Your task to perform on an android device: toggle notification dots Image 0: 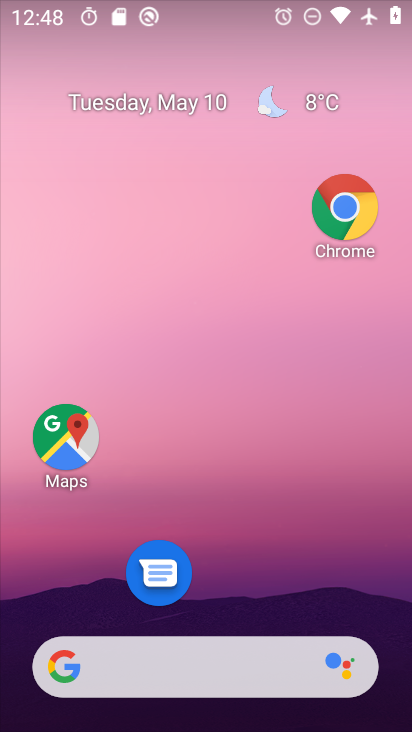
Step 0: drag from (268, 597) to (220, 219)
Your task to perform on an android device: toggle notification dots Image 1: 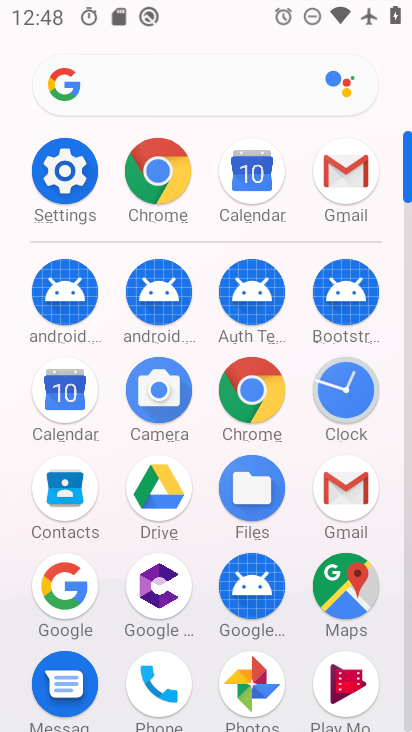
Step 1: click (71, 158)
Your task to perform on an android device: toggle notification dots Image 2: 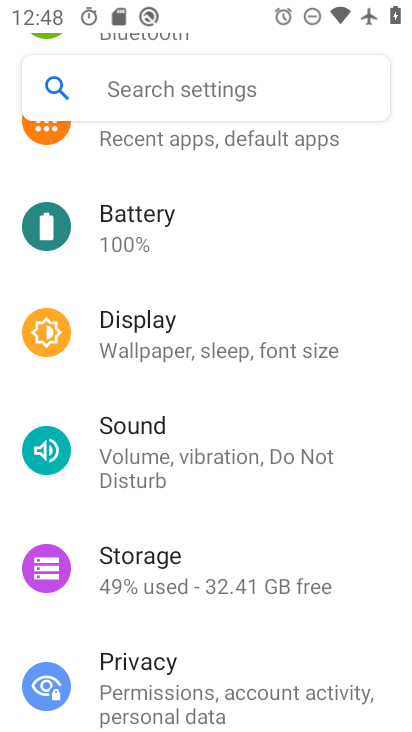
Step 2: drag from (229, 197) to (293, 672)
Your task to perform on an android device: toggle notification dots Image 3: 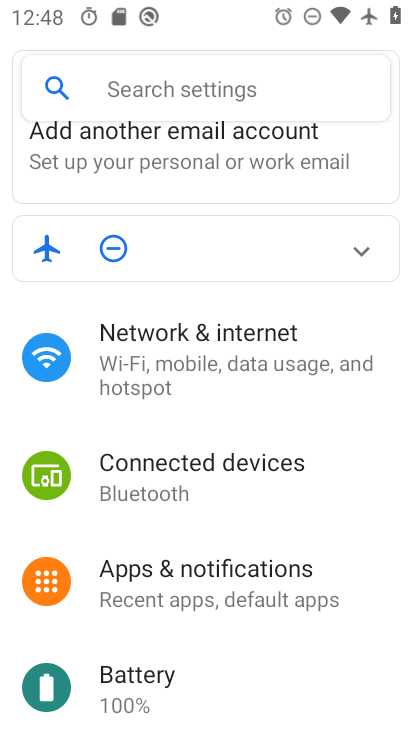
Step 3: click (255, 578)
Your task to perform on an android device: toggle notification dots Image 4: 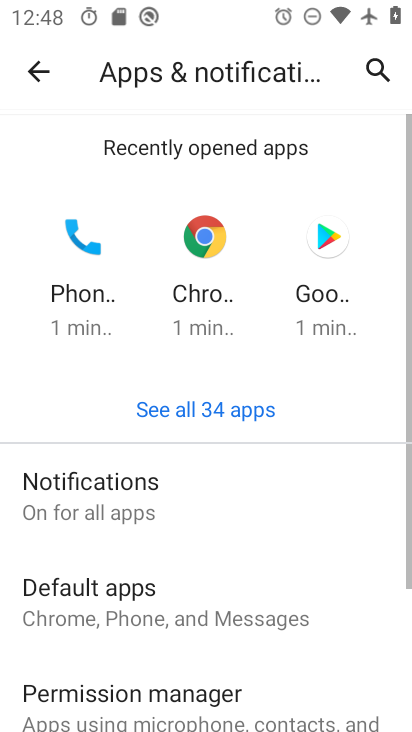
Step 4: click (229, 499)
Your task to perform on an android device: toggle notification dots Image 5: 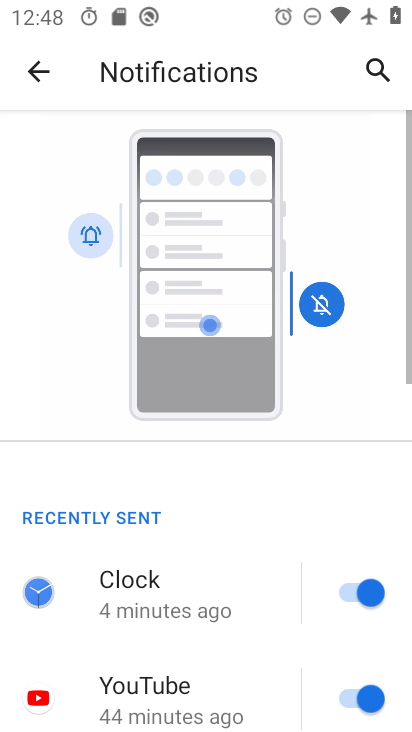
Step 5: drag from (246, 616) to (219, 67)
Your task to perform on an android device: toggle notification dots Image 6: 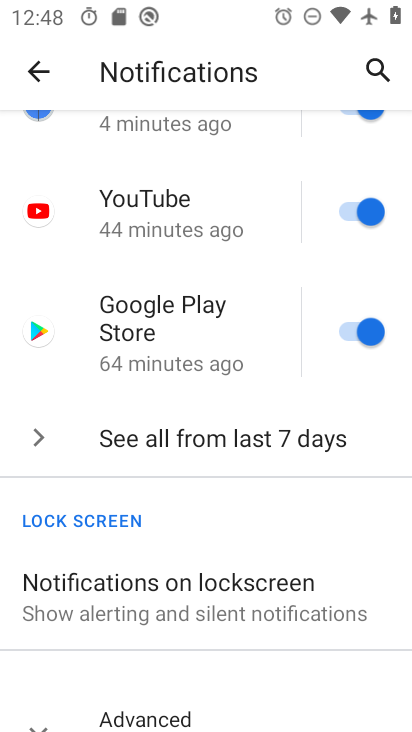
Step 6: drag from (237, 561) to (192, 126)
Your task to perform on an android device: toggle notification dots Image 7: 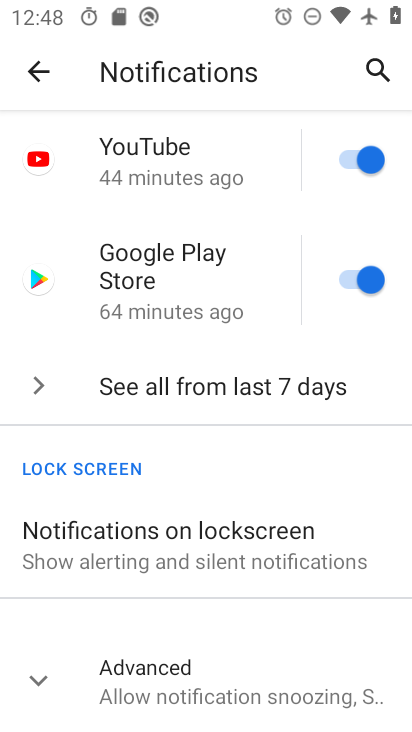
Step 7: click (161, 687)
Your task to perform on an android device: toggle notification dots Image 8: 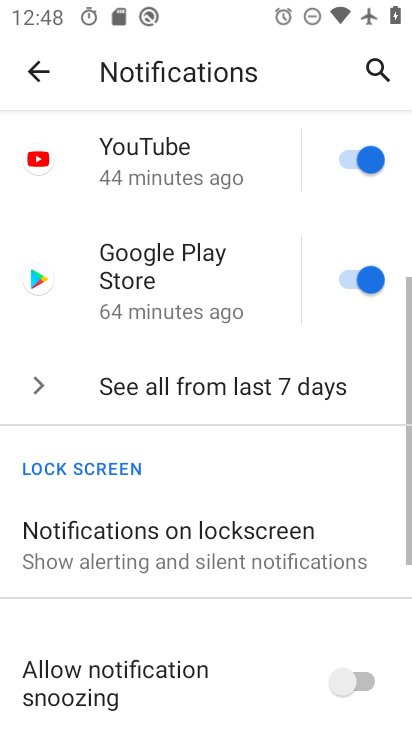
Step 8: drag from (262, 624) to (214, 94)
Your task to perform on an android device: toggle notification dots Image 9: 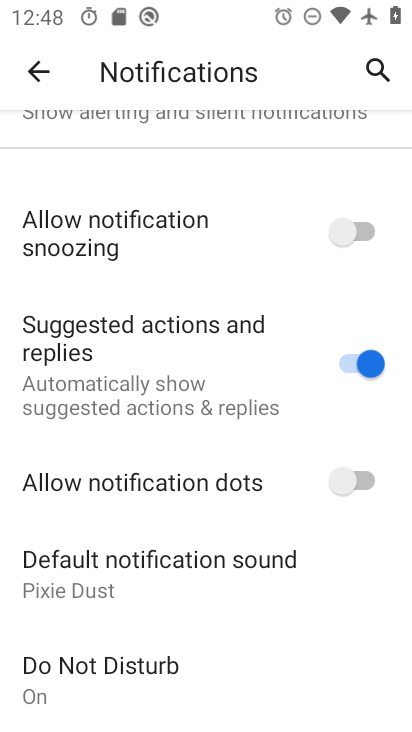
Step 9: click (354, 483)
Your task to perform on an android device: toggle notification dots Image 10: 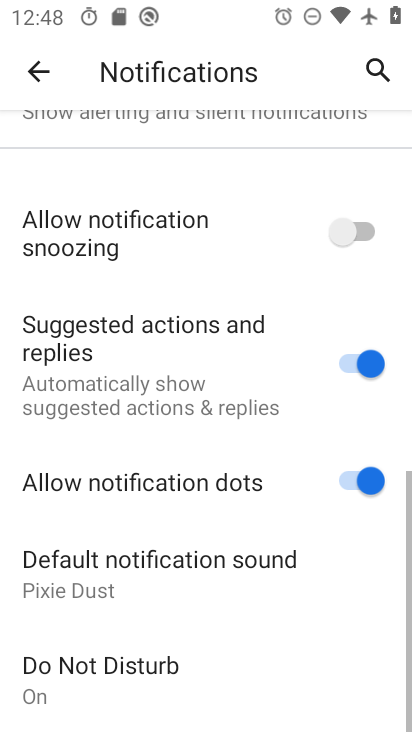
Step 10: task complete